Your task to perform on an android device: Show me popular games on the Play Store Image 0: 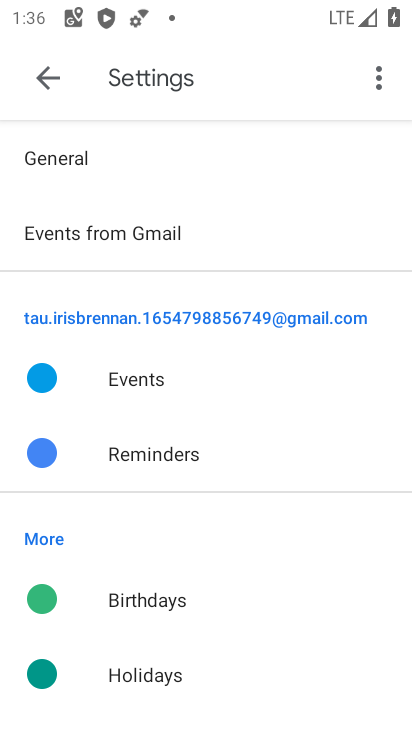
Step 0: press home button
Your task to perform on an android device: Show me popular games on the Play Store Image 1: 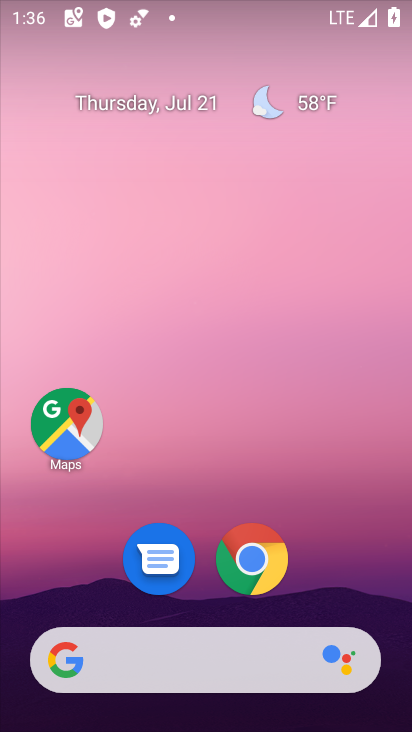
Step 1: drag from (372, 582) to (371, 92)
Your task to perform on an android device: Show me popular games on the Play Store Image 2: 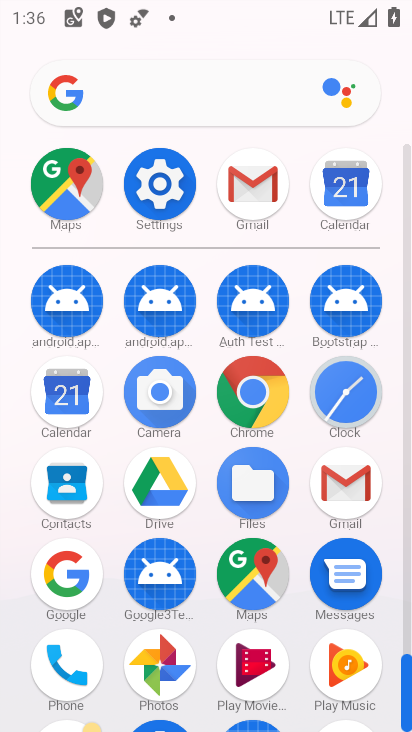
Step 2: drag from (398, 494) to (393, 265)
Your task to perform on an android device: Show me popular games on the Play Store Image 3: 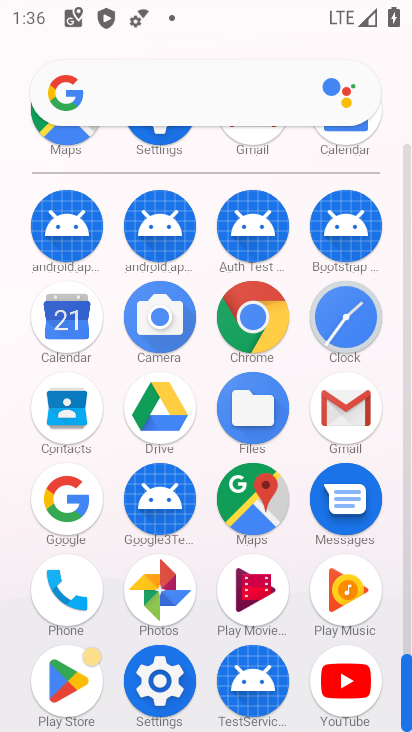
Step 3: click (80, 677)
Your task to perform on an android device: Show me popular games on the Play Store Image 4: 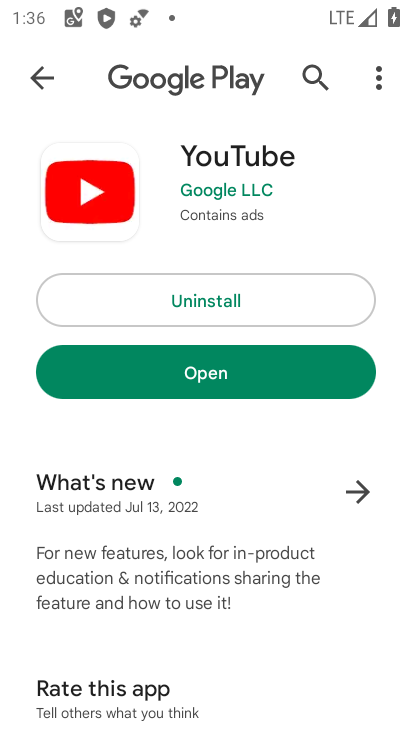
Step 4: press back button
Your task to perform on an android device: Show me popular games on the Play Store Image 5: 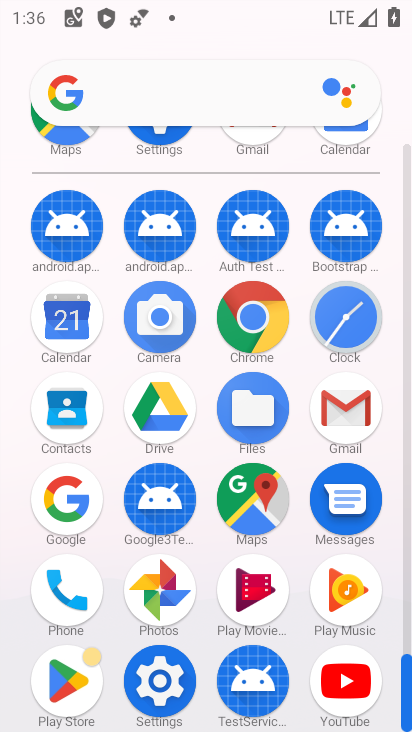
Step 5: click (82, 664)
Your task to perform on an android device: Show me popular games on the Play Store Image 6: 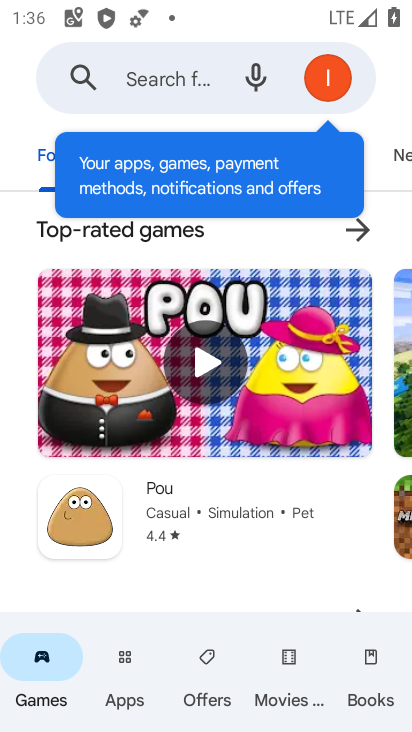
Step 6: task complete